Your task to perform on an android device: open app "PUBG MOBILE" Image 0: 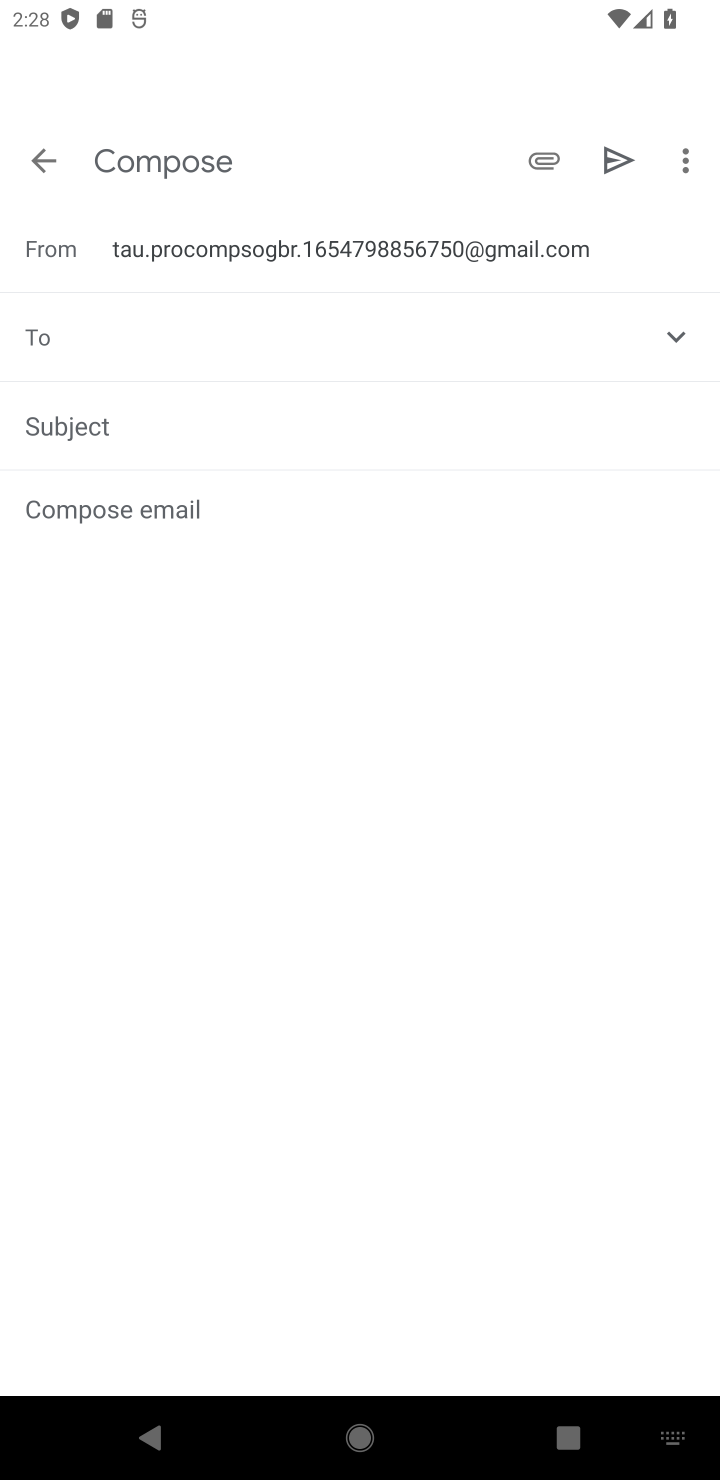
Step 0: press home button
Your task to perform on an android device: open app "PUBG MOBILE" Image 1: 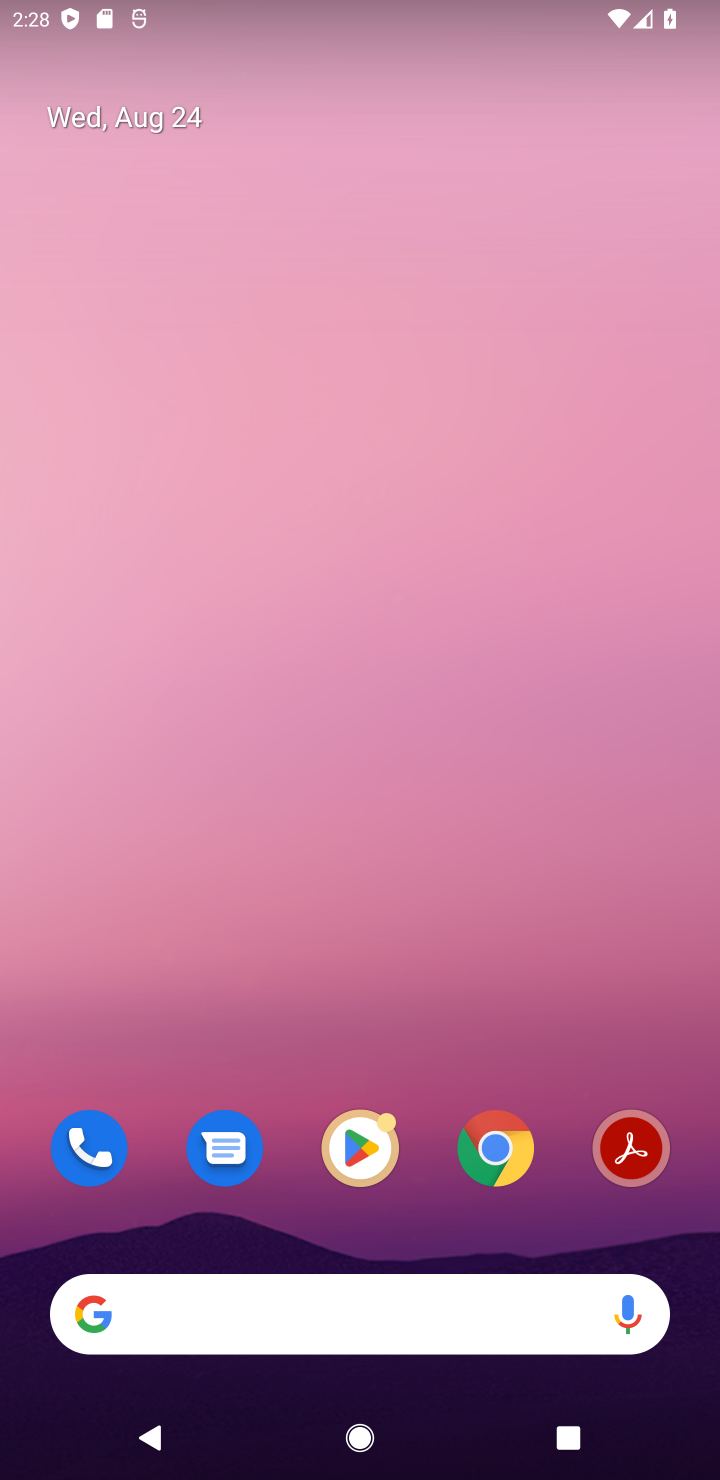
Step 1: drag from (449, 1205) to (445, 460)
Your task to perform on an android device: open app "PUBG MOBILE" Image 2: 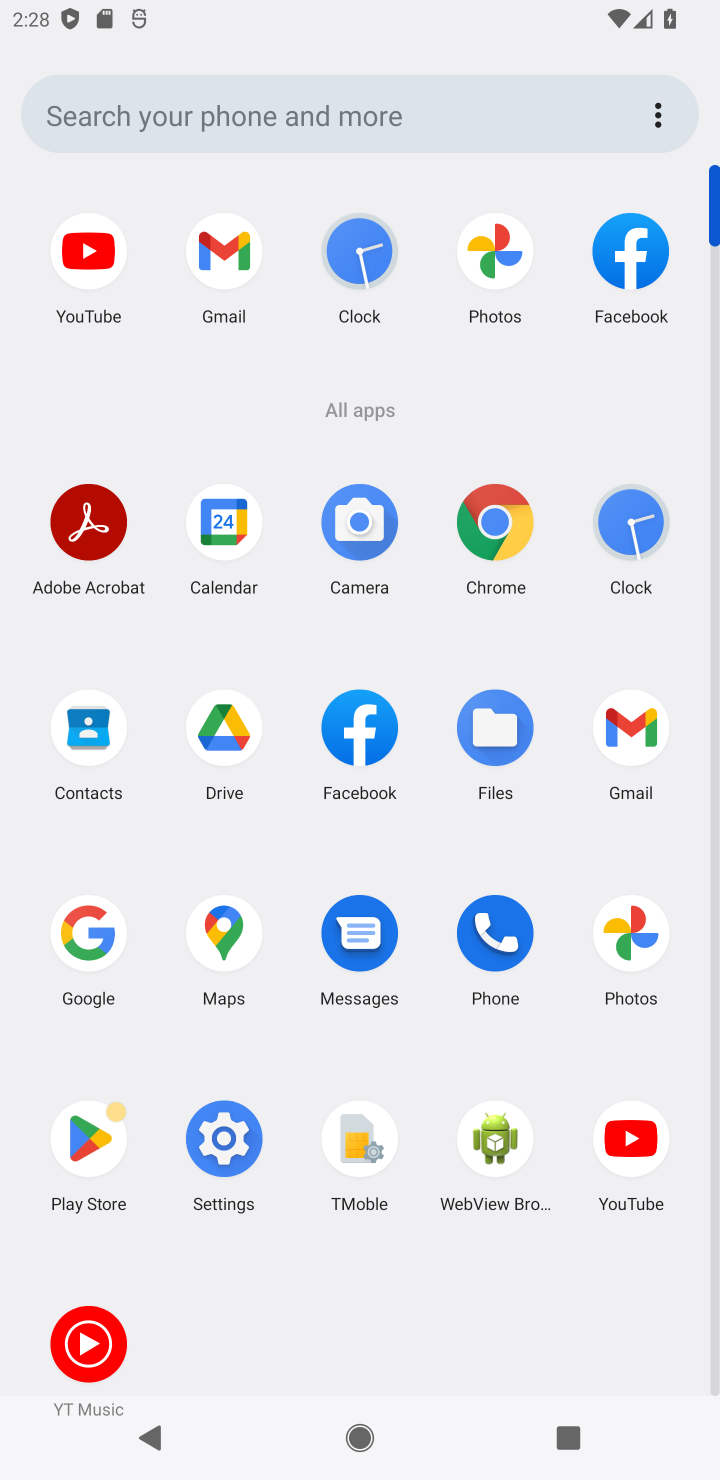
Step 2: click (80, 1127)
Your task to perform on an android device: open app "PUBG MOBILE" Image 3: 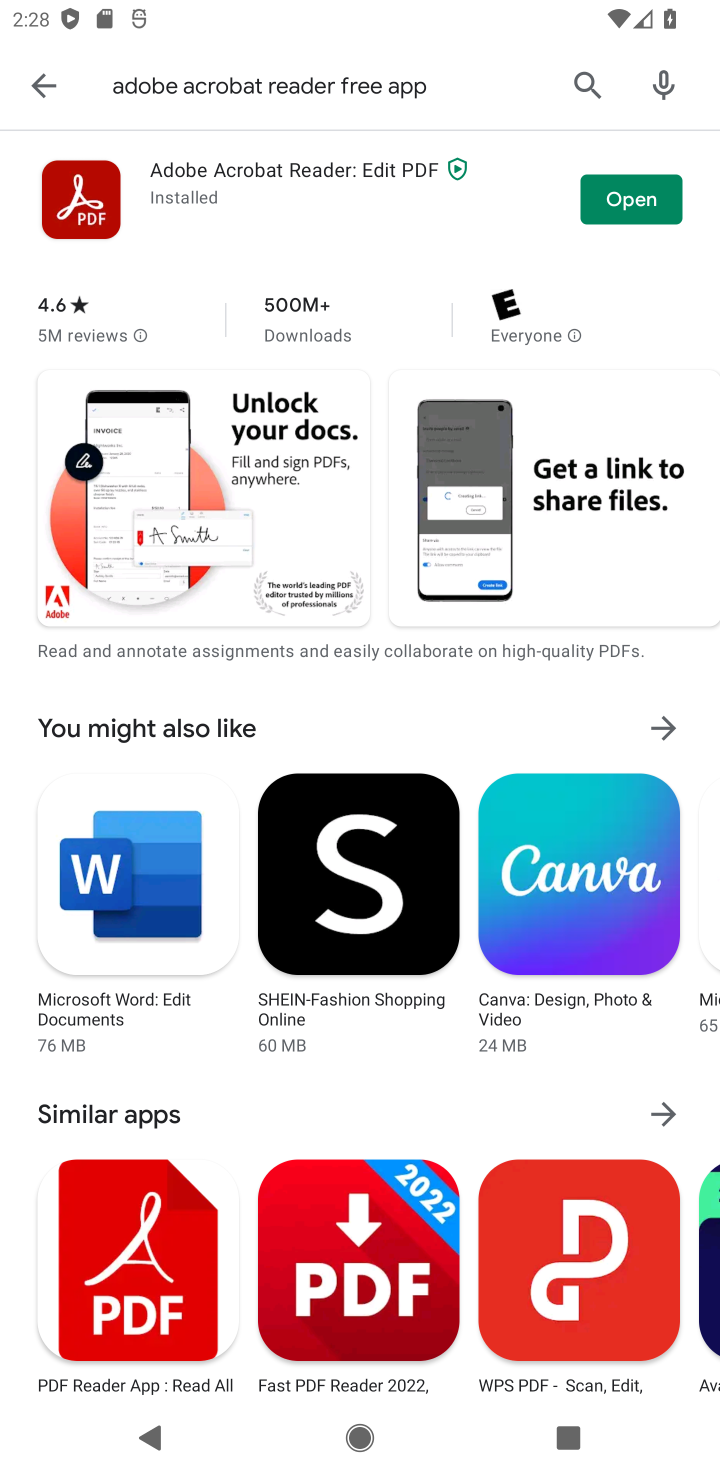
Step 3: click (47, 80)
Your task to perform on an android device: open app "PUBG MOBILE" Image 4: 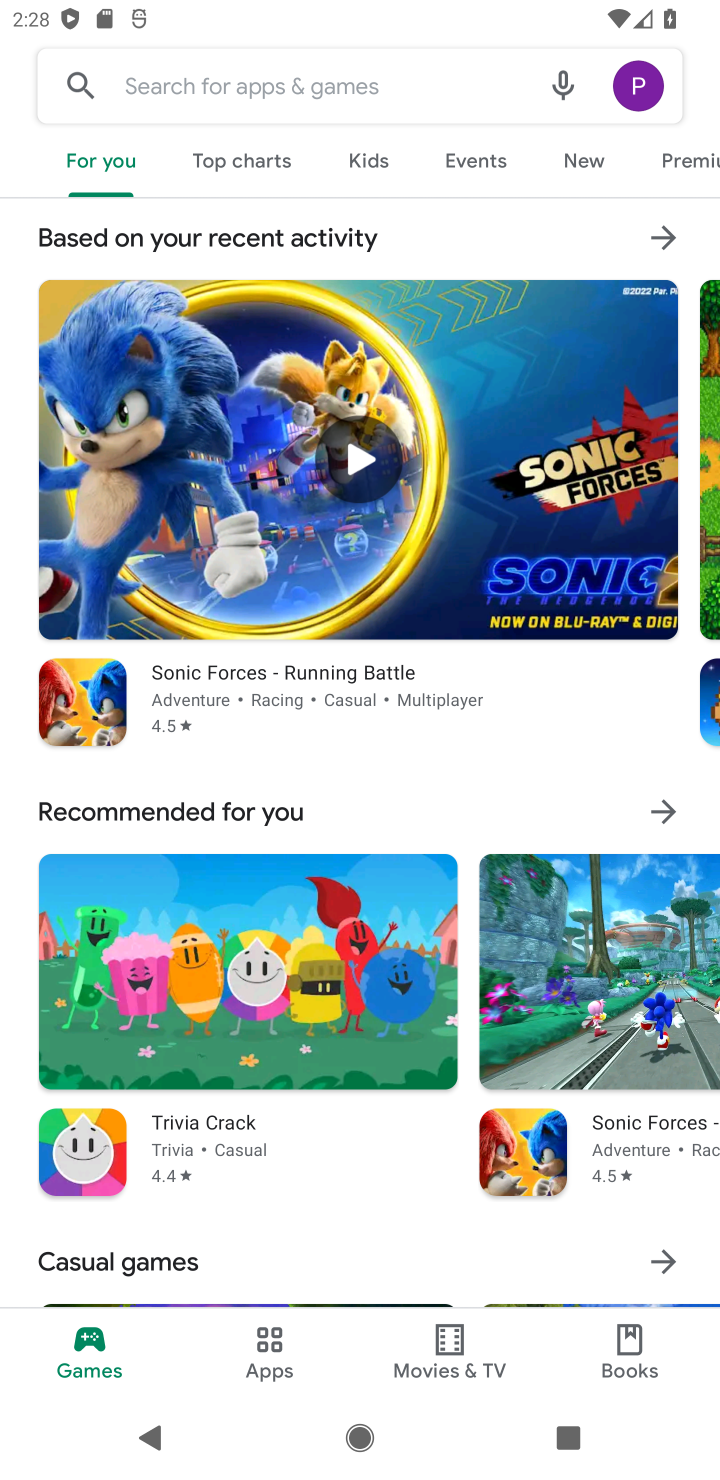
Step 4: click (370, 95)
Your task to perform on an android device: open app "PUBG MOBILE" Image 5: 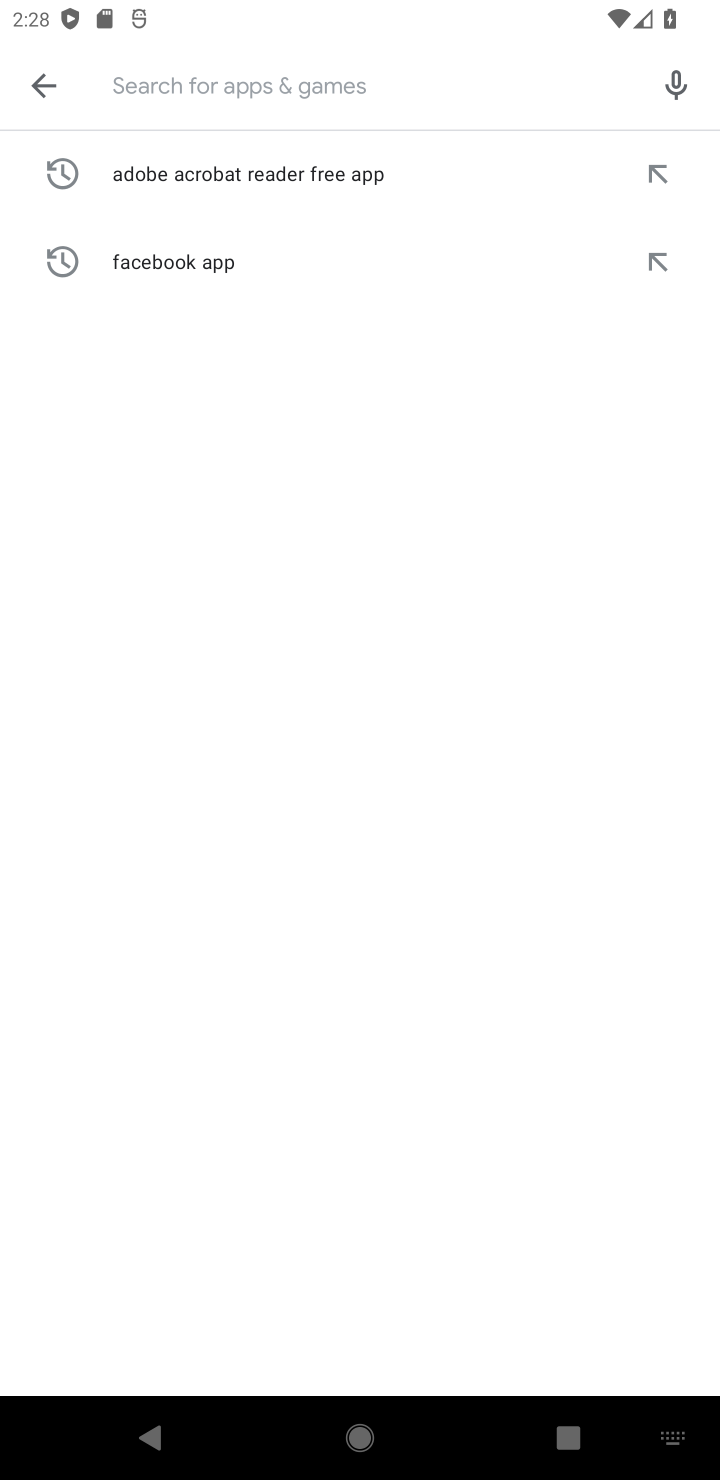
Step 5: type "PUBG MOBILE "
Your task to perform on an android device: open app "PUBG MOBILE" Image 6: 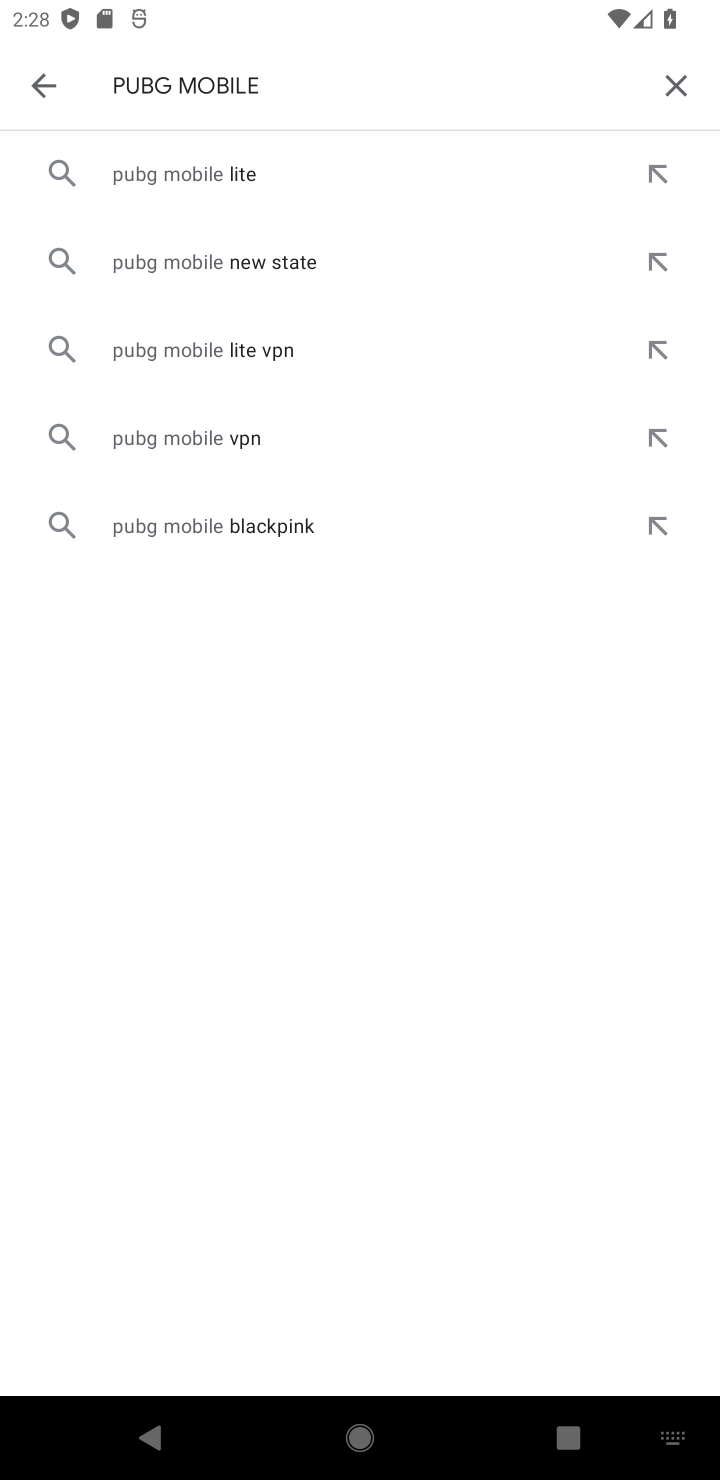
Step 6: click (235, 190)
Your task to perform on an android device: open app "PUBG MOBILE" Image 7: 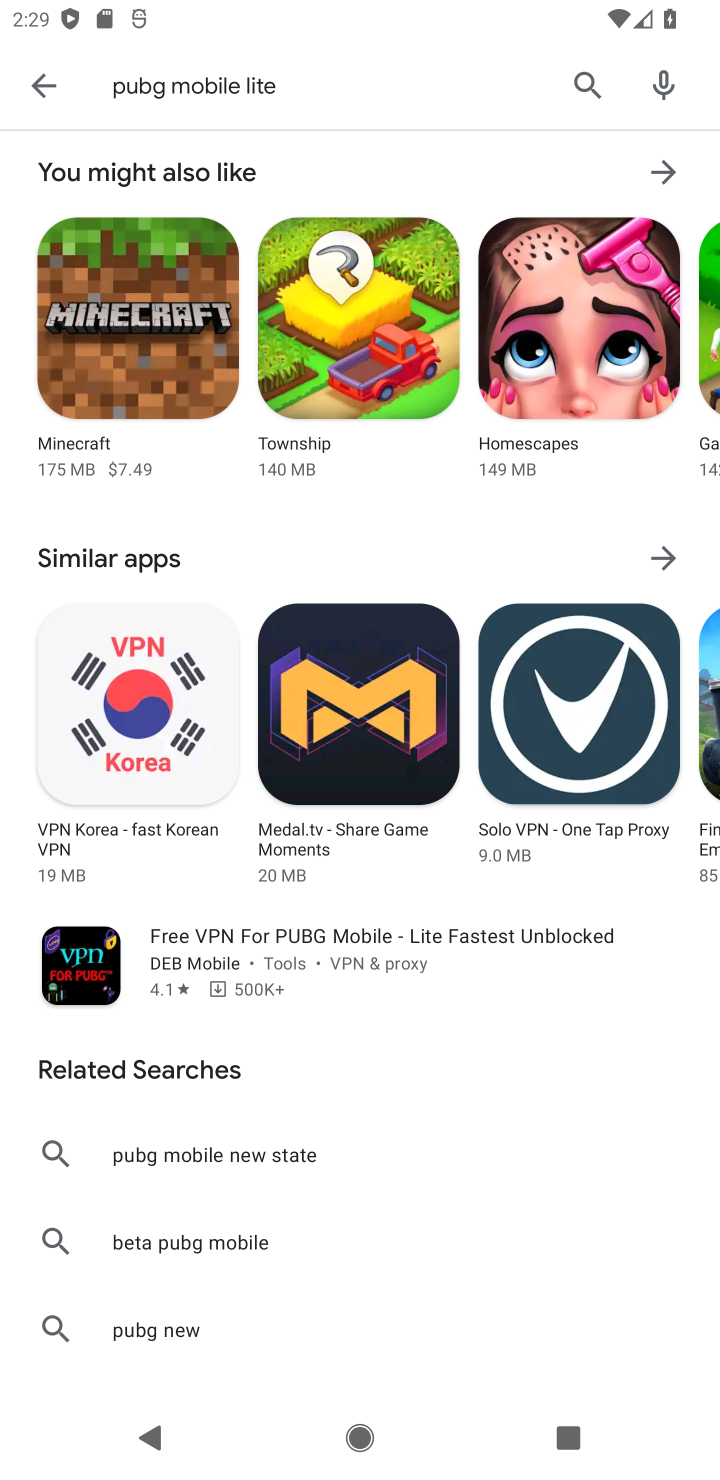
Step 7: click (235, 183)
Your task to perform on an android device: open app "PUBG MOBILE" Image 8: 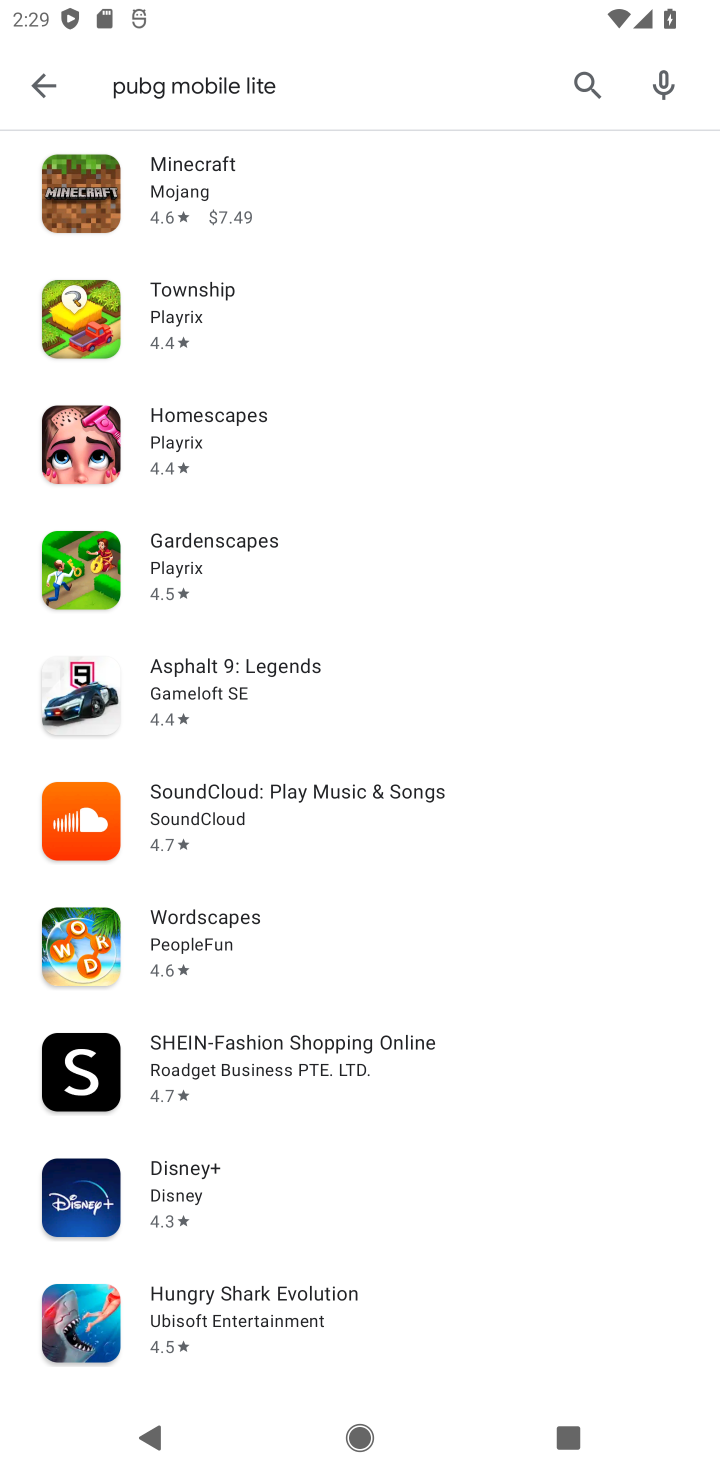
Step 8: task complete